Your task to perform on an android device: Clear all items from cart on target. Search for "razer kraken" on target, select the first entry, and add it to the cart. Image 0: 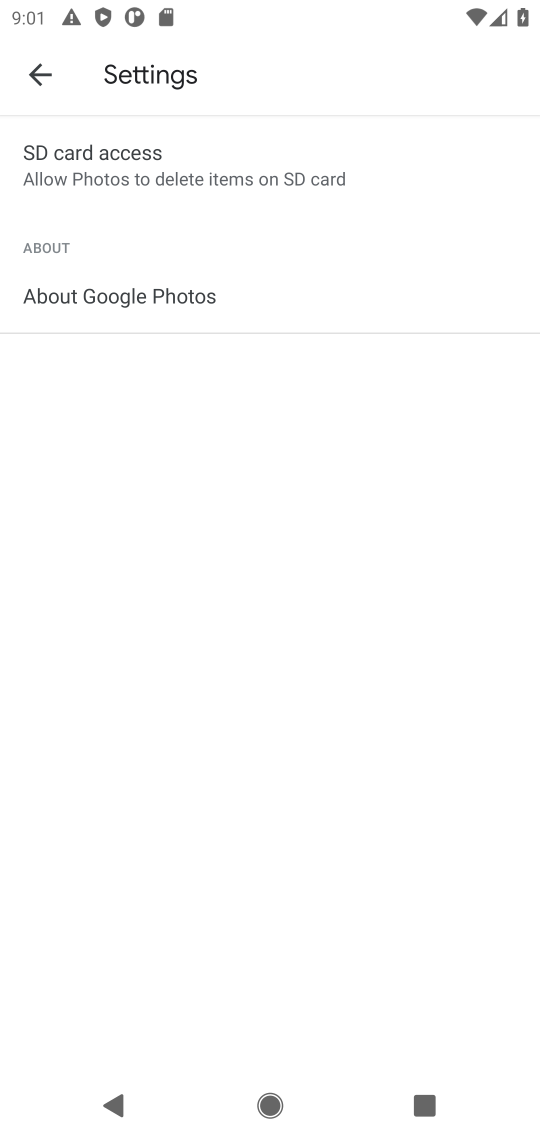
Step 0: press home button
Your task to perform on an android device: Clear all items from cart on target. Search for "razer kraken" on target, select the first entry, and add it to the cart. Image 1: 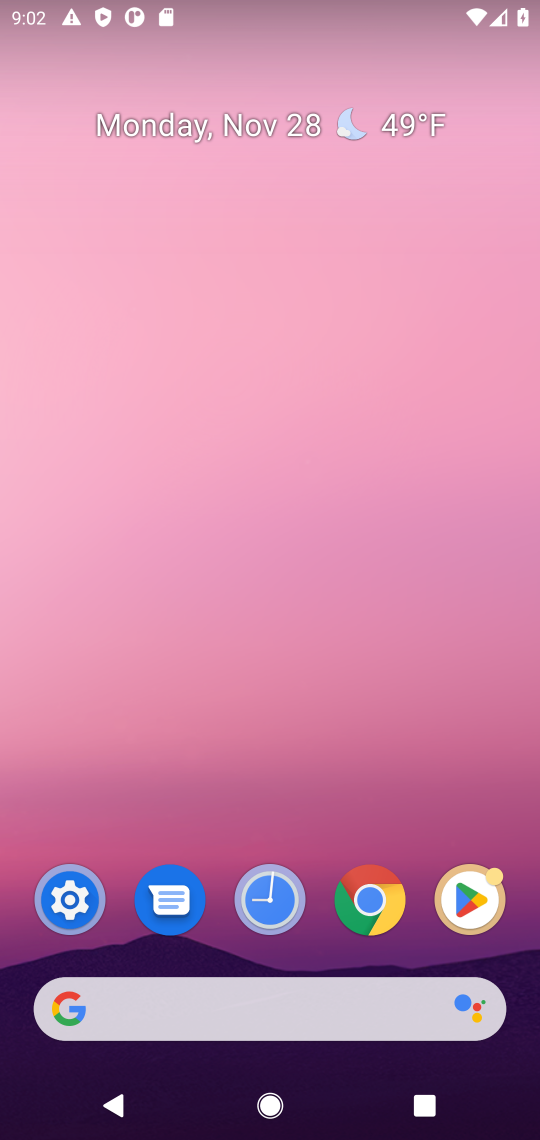
Step 1: click (160, 1036)
Your task to perform on an android device: Clear all items from cart on target. Search for "razer kraken" on target, select the first entry, and add it to the cart. Image 2: 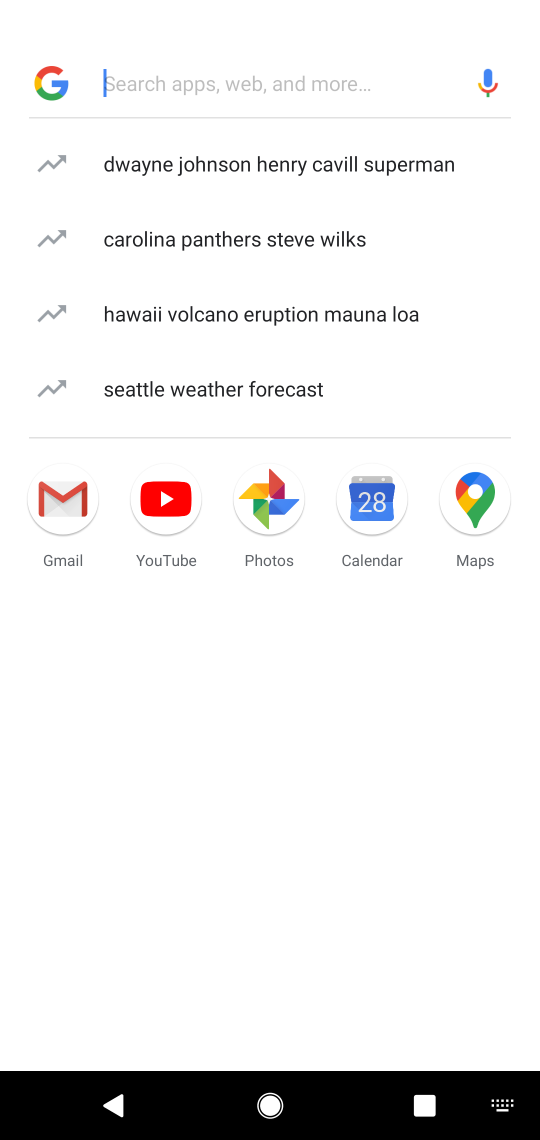
Step 2: type "target"
Your task to perform on an android device: Clear all items from cart on target. Search for "razer kraken" on target, select the first entry, and add it to the cart. Image 3: 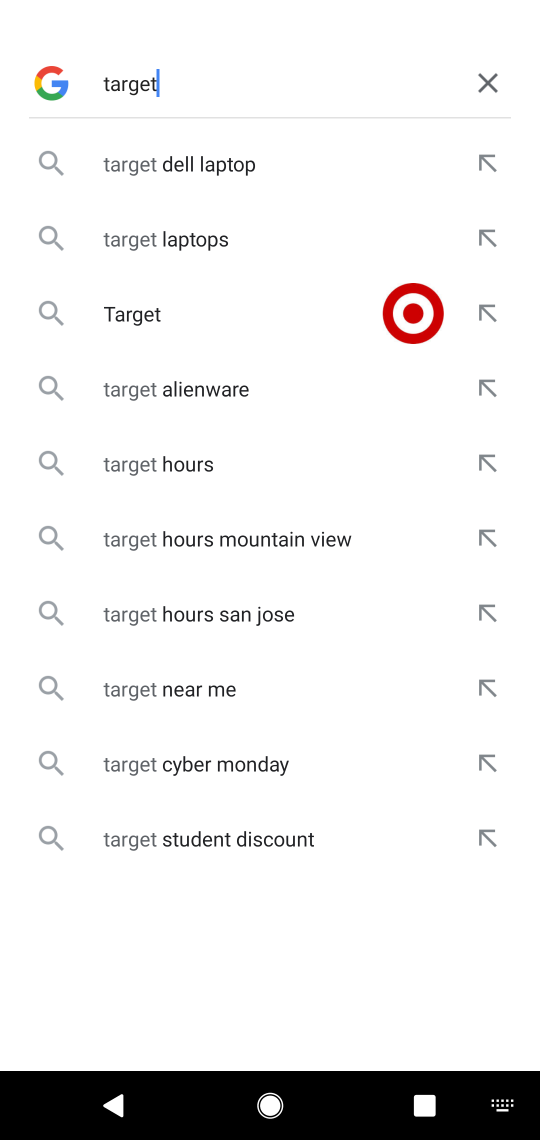
Step 3: click (158, 185)
Your task to perform on an android device: Clear all items from cart on target. Search for "razer kraken" on target, select the first entry, and add it to the cart. Image 4: 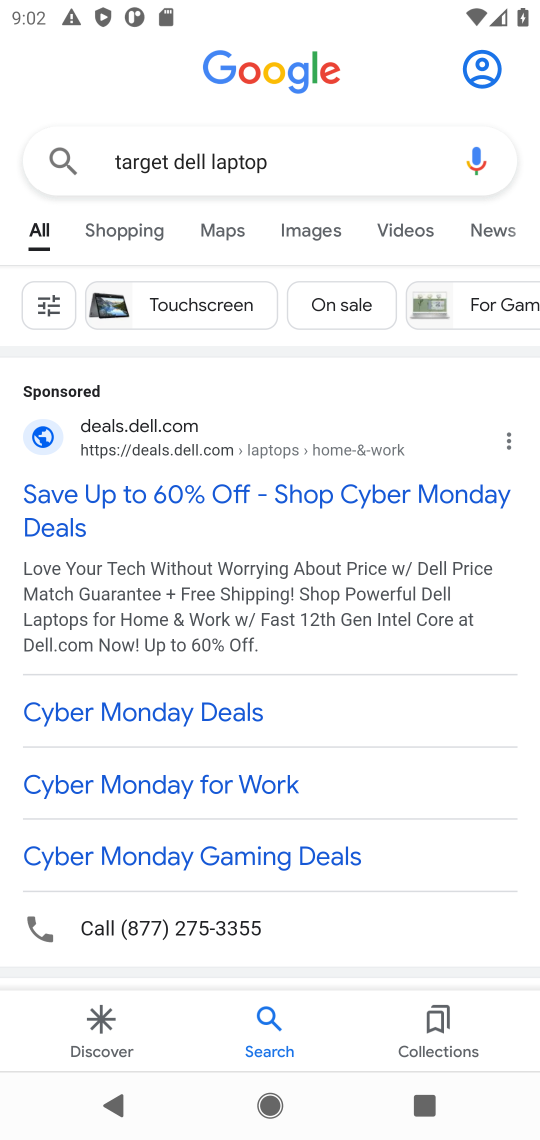
Step 4: click (88, 506)
Your task to perform on an android device: Clear all items from cart on target. Search for "razer kraken" on target, select the first entry, and add it to the cart. Image 5: 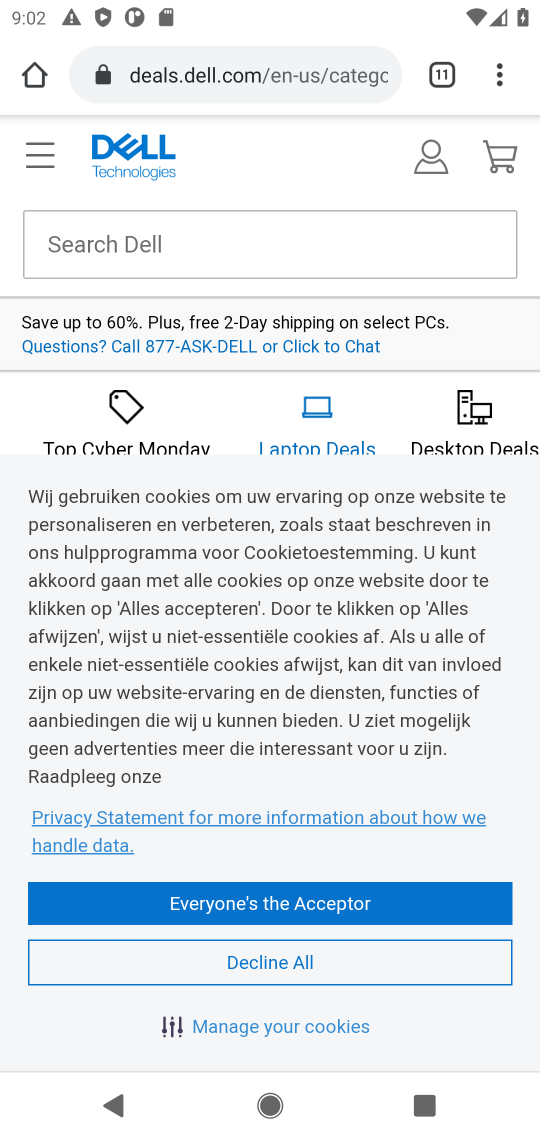
Step 5: click (274, 266)
Your task to perform on an android device: Clear all items from cart on target. Search for "razer kraken" on target, select the first entry, and add it to the cart. Image 6: 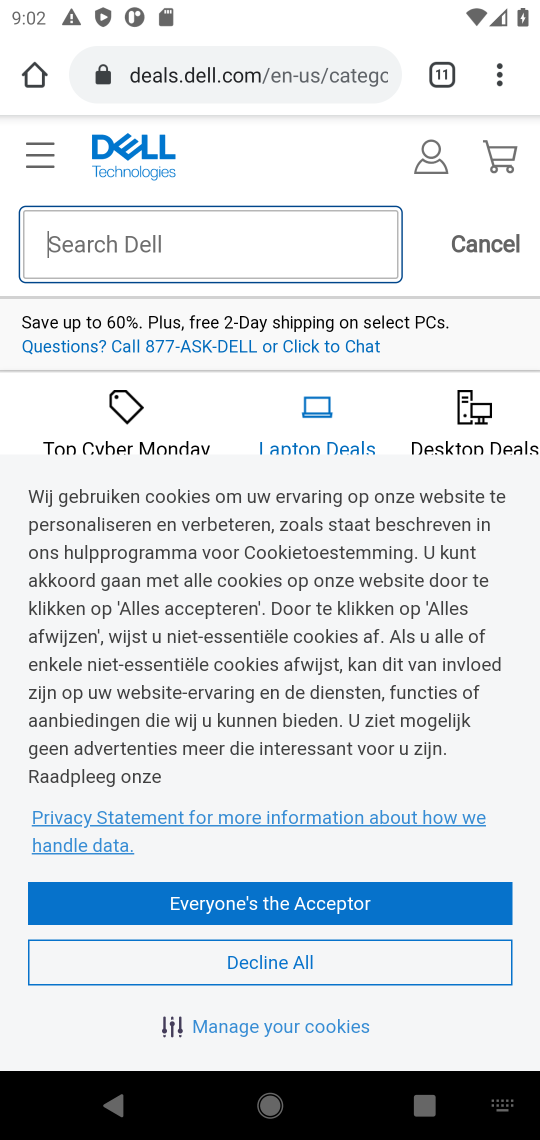
Step 6: type "razer karne"
Your task to perform on an android device: Clear all items from cart on target. Search for "razer kraken" on target, select the first entry, and add it to the cart. Image 7: 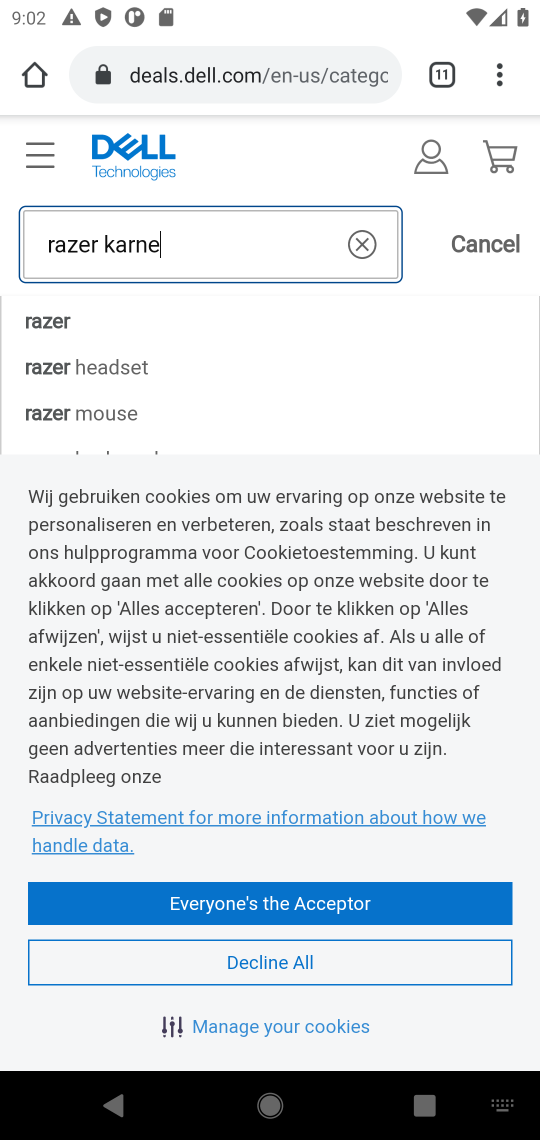
Step 7: task complete